Your task to perform on an android device: change your default location settings in chrome Image 0: 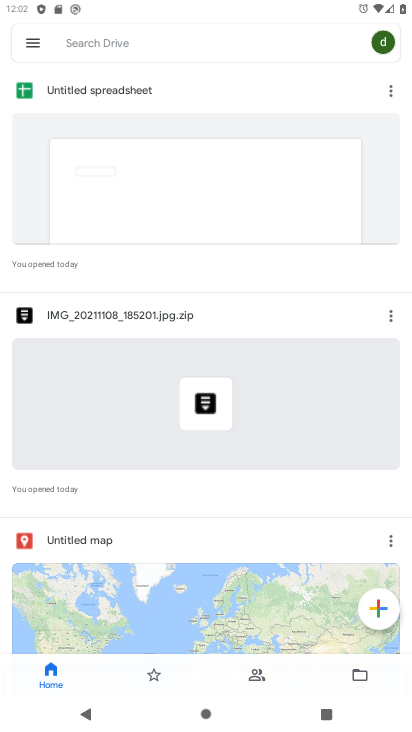
Step 0: press home button
Your task to perform on an android device: change your default location settings in chrome Image 1: 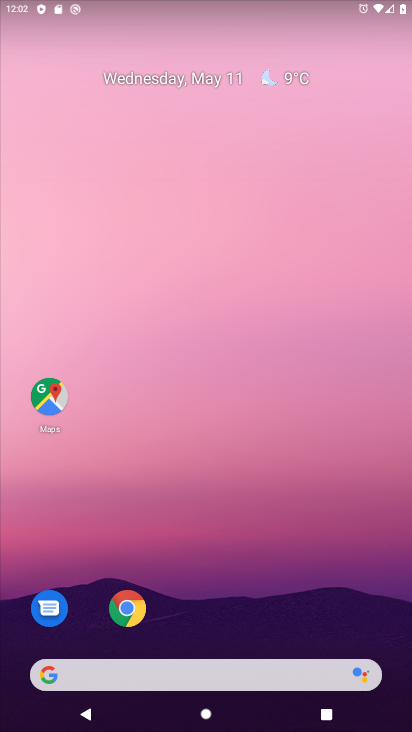
Step 1: drag from (145, 603) to (171, 143)
Your task to perform on an android device: change your default location settings in chrome Image 2: 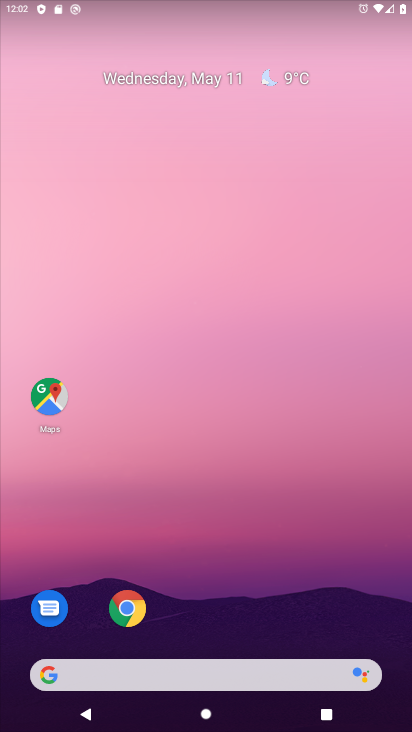
Step 2: drag from (241, 627) to (231, 280)
Your task to perform on an android device: change your default location settings in chrome Image 3: 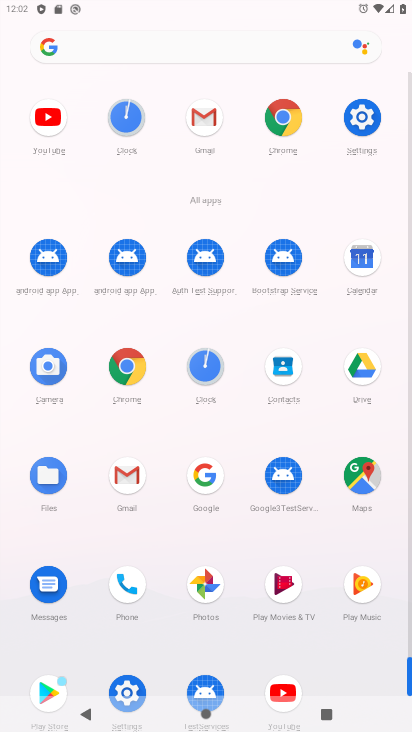
Step 3: click (275, 127)
Your task to perform on an android device: change your default location settings in chrome Image 4: 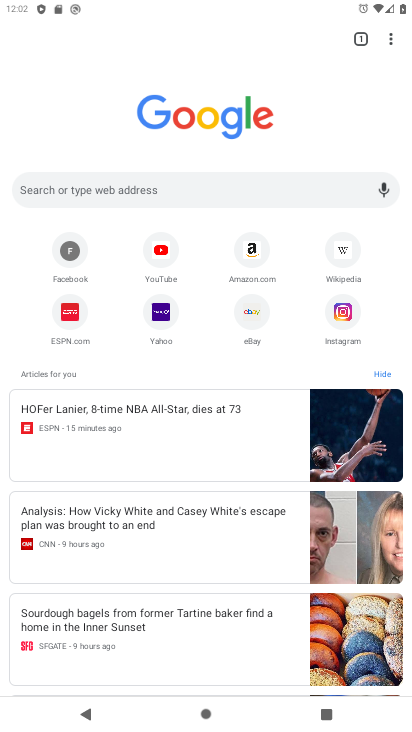
Step 4: click (391, 39)
Your task to perform on an android device: change your default location settings in chrome Image 5: 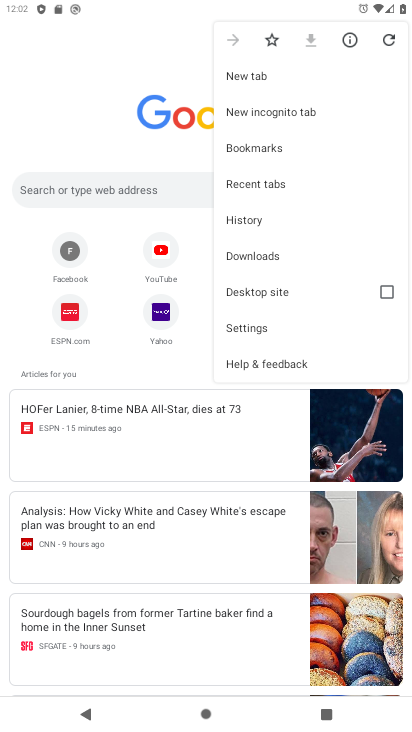
Step 5: click (264, 322)
Your task to perform on an android device: change your default location settings in chrome Image 6: 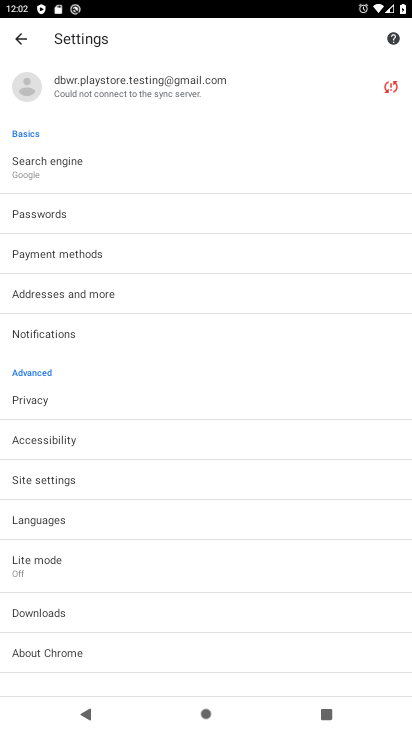
Step 6: drag from (251, 602) to (257, 480)
Your task to perform on an android device: change your default location settings in chrome Image 7: 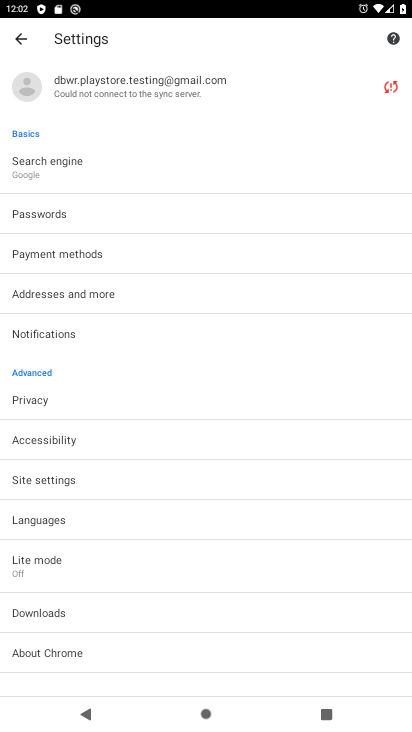
Step 7: click (141, 484)
Your task to perform on an android device: change your default location settings in chrome Image 8: 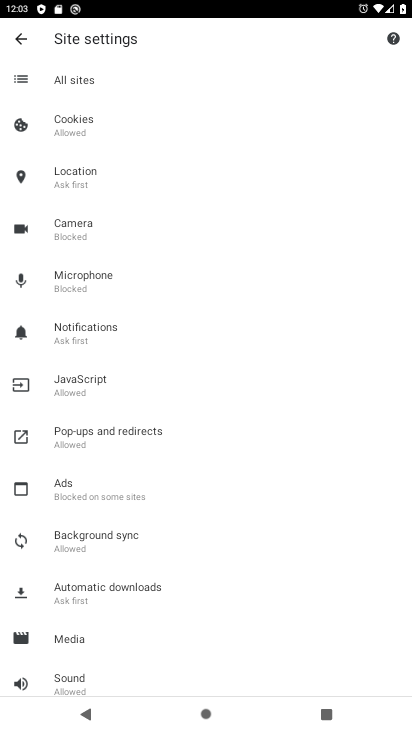
Step 8: click (110, 178)
Your task to perform on an android device: change your default location settings in chrome Image 9: 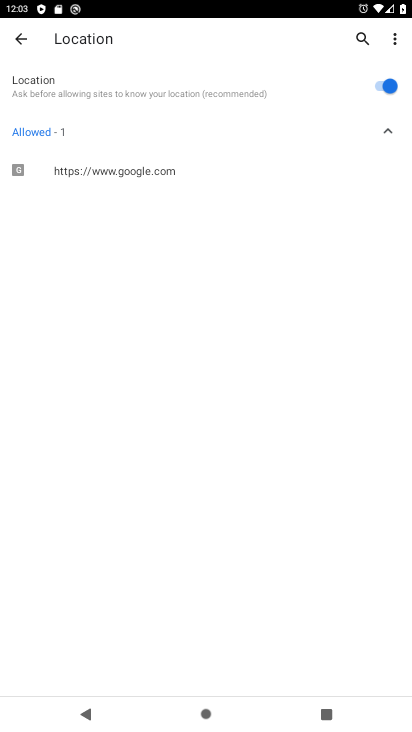
Step 9: click (383, 84)
Your task to perform on an android device: change your default location settings in chrome Image 10: 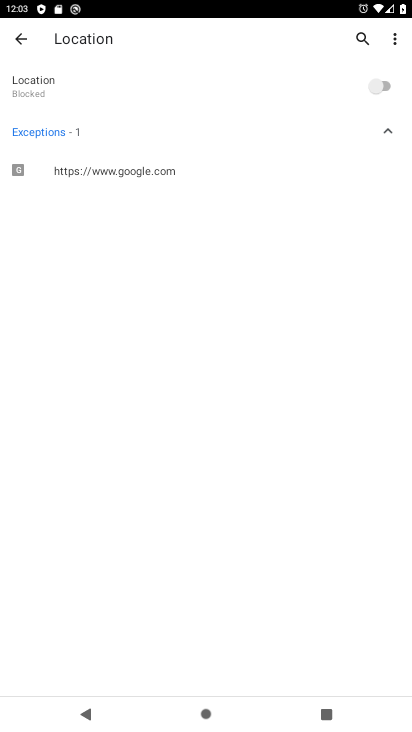
Step 10: task complete